Your task to perform on an android device: Go to Reddit.com Image 0: 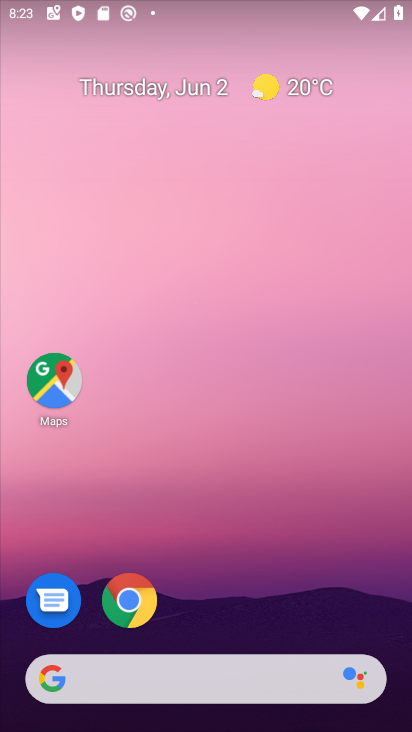
Step 0: drag from (371, 609) to (380, 257)
Your task to perform on an android device: Go to Reddit.com Image 1: 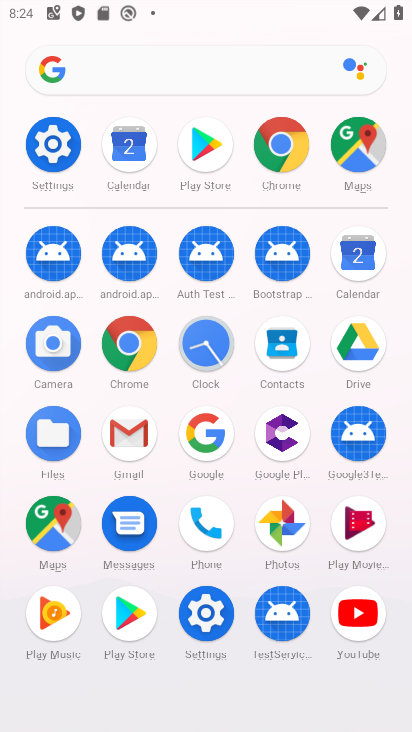
Step 1: click (133, 363)
Your task to perform on an android device: Go to Reddit.com Image 2: 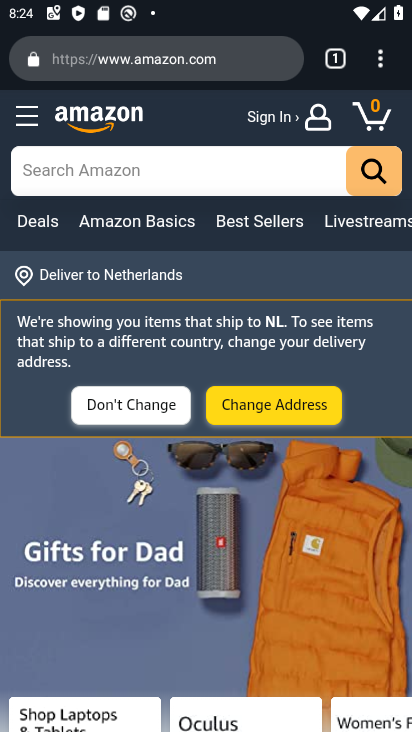
Step 2: click (208, 53)
Your task to perform on an android device: Go to Reddit.com Image 3: 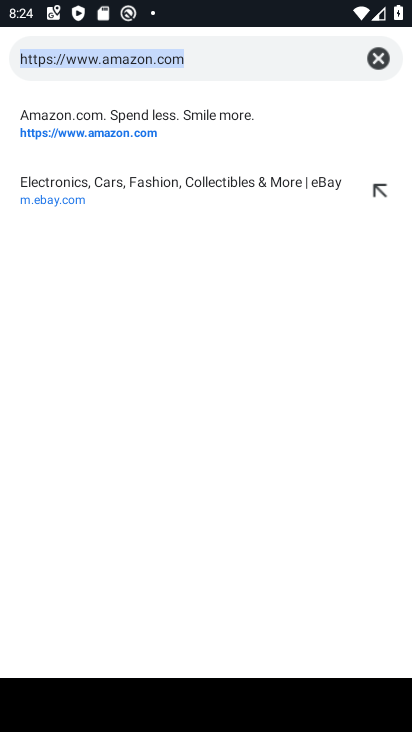
Step 3: click (371, 55)
Your task to perform on an android device: Go to Reddit.com Image 4: 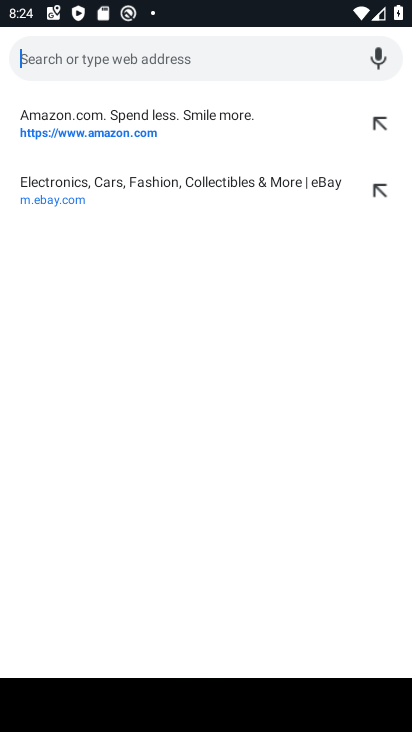
Step 4: type "reddit.com"
Your task to perform on an android device: Go to Reddit.com Image 5: 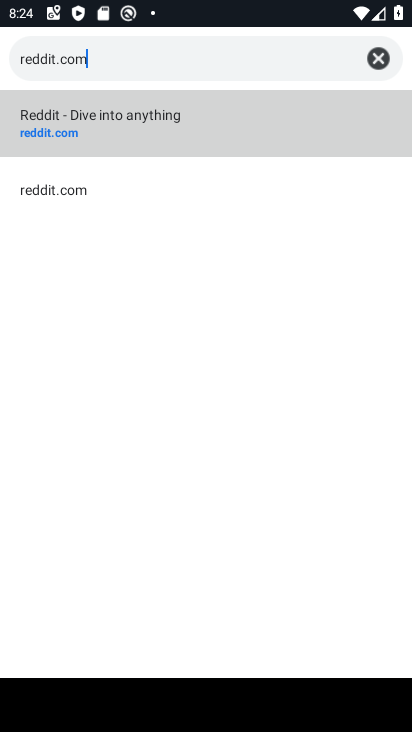
Step 5: click (111, 198)
Your task to perform on an android device: Go to Reddit.com Image 6: 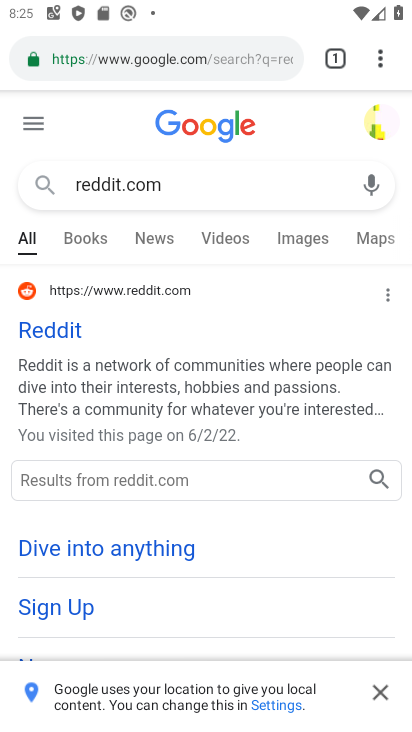
Step 6: task complete